Your task to perform on an android device: Open the calendar app, open the side menu, and click the "Day" option Image 0: 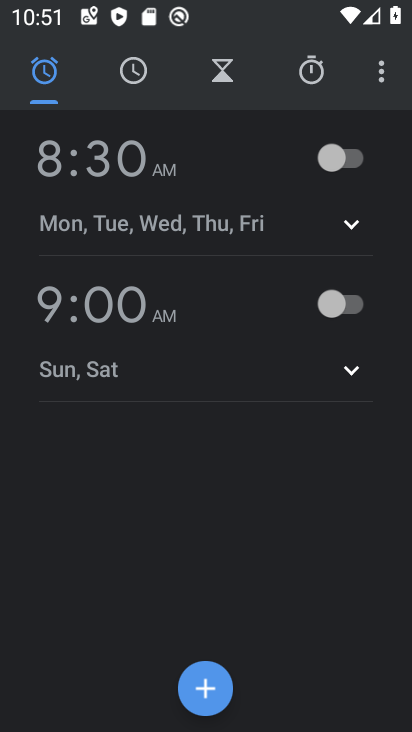
Step 0: press back button
Your task to perform on an android device: Open the calendar app, open the side menu, and click the "Day" option Image 1: 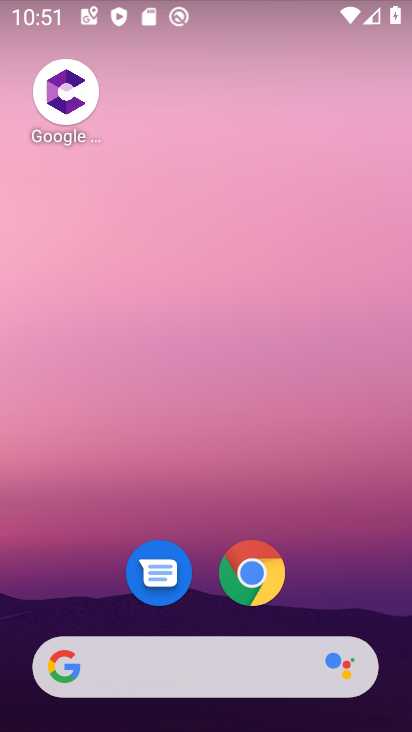
Step 1: drag from (350, 529) to (268, 26)
Your task to perform on an android device: Open the calendar app, open the side menu, and click the "Day" option Image 2: 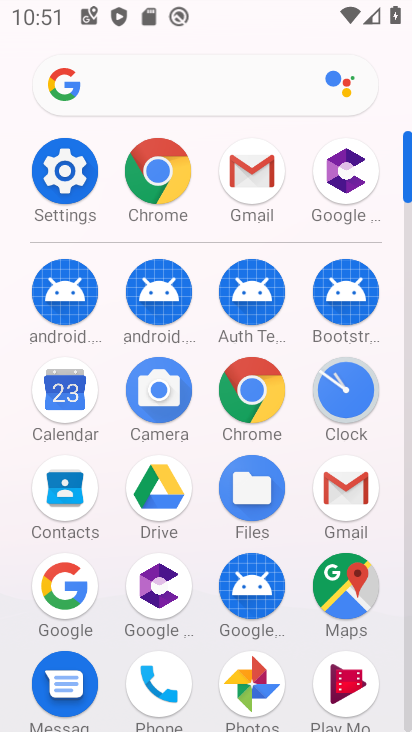
Step 2: click (67, 392)
Your task to perform on an android device: Open the calendar app, open the side menu, and click the "Day" option Image 3: 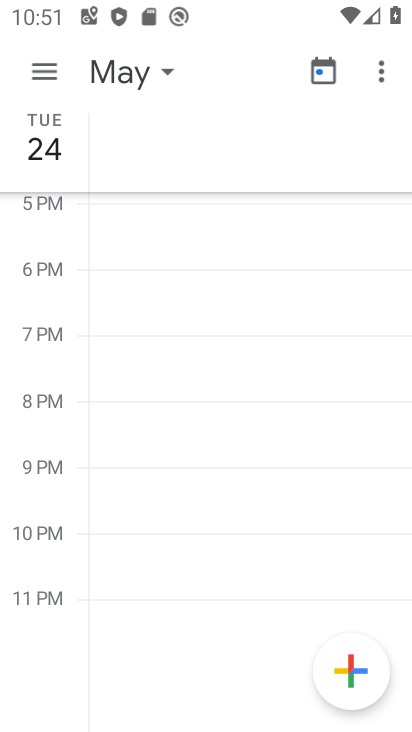
Step 3: click (62, 69)
Your task to perform on an android device: Open the calendar app, open the side menu, and click the "Day" option Image 4: 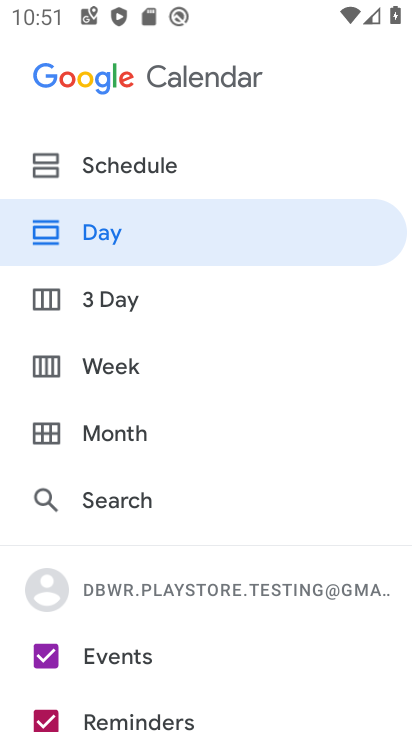
Step 4: click (132, 248)
Your task to perform on an android device: Open the calendar app, open the side menu, and click the "Day" option Image 5: 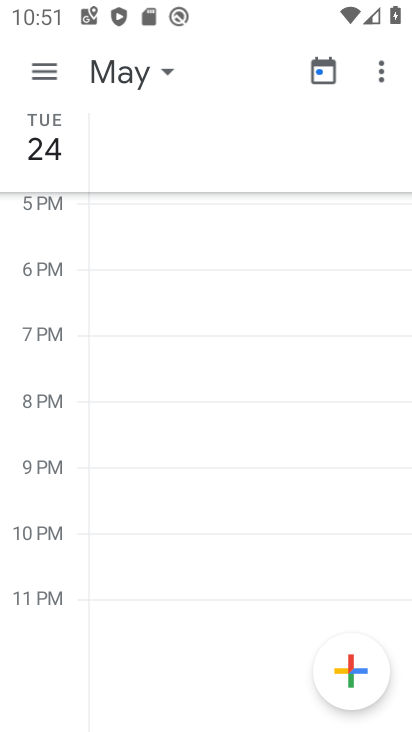
Step 5: task complete